Your task to perform on an android device: check data usage Image 0: 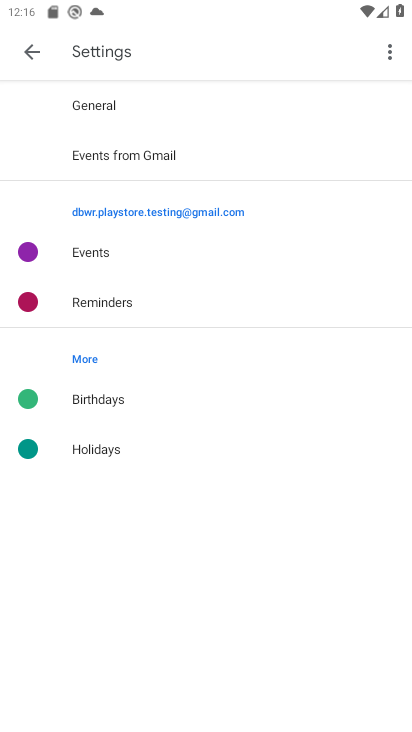
Step 0: click (22, 45)
Your task to perform on an android device: check data usage Image 1: 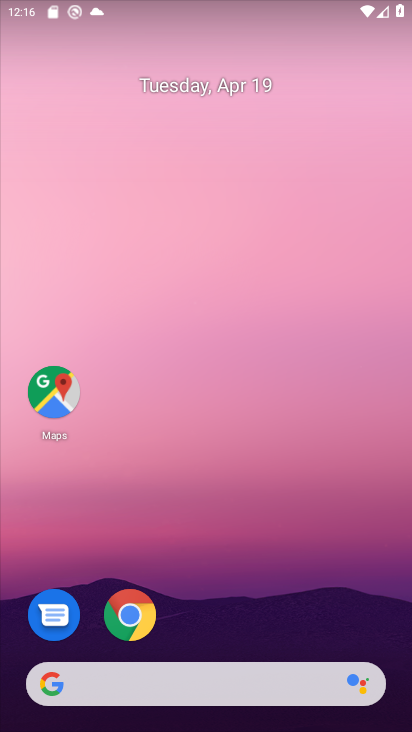
Step 1: drag from (260, 659) to (300, 156)
Your task to perform on an android device: check data usage Image 2: 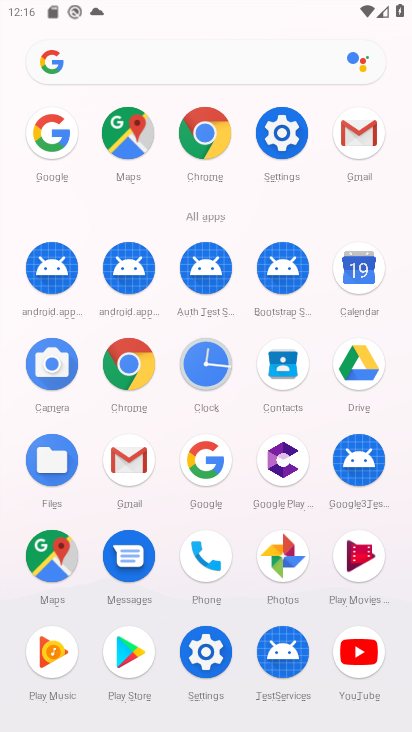
Step 2: click (281, 134)
Your task to perform on an android device: check data usage Image 3: 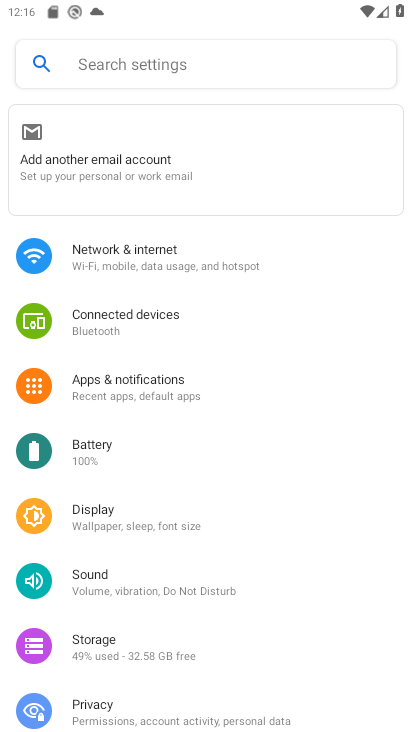
Step 3: click (171, 260)
Your task to perform on an android device: check data usage Image 4: 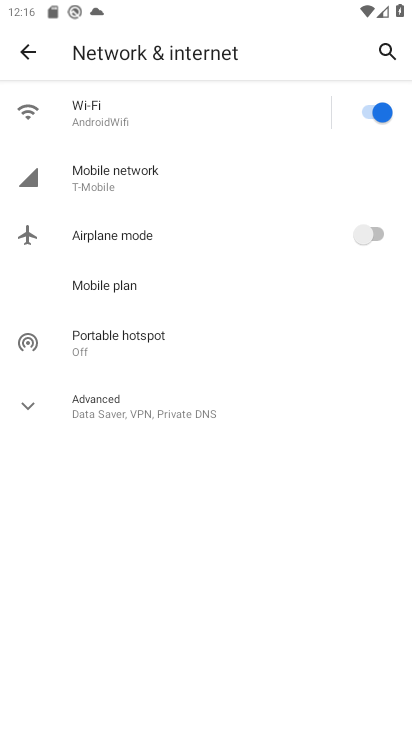
Step 4: click (103, 184)
Your task to perform on an android device: check data usage Image 5: 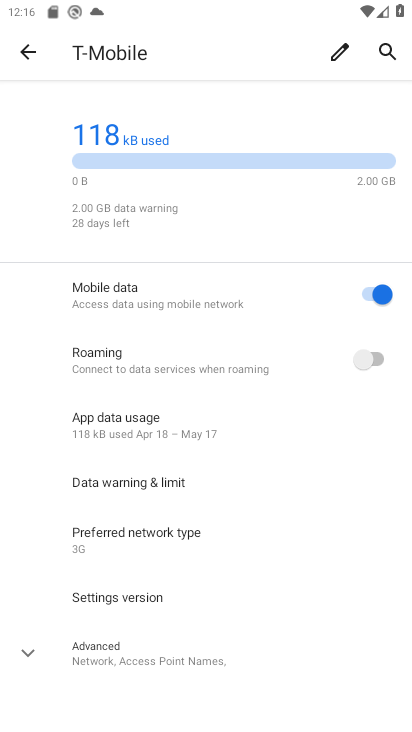
Step 5: task complete